Your task to perform on an android device: set default search engine in the chrome app Image 0: 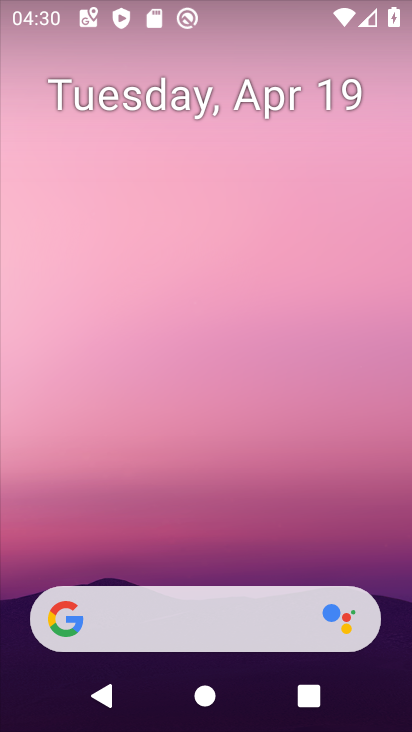
Step 0: drag from (110, 505) to (200, 163)
Your task to perform on an android device: set default search engine in the chrome app Image 1: 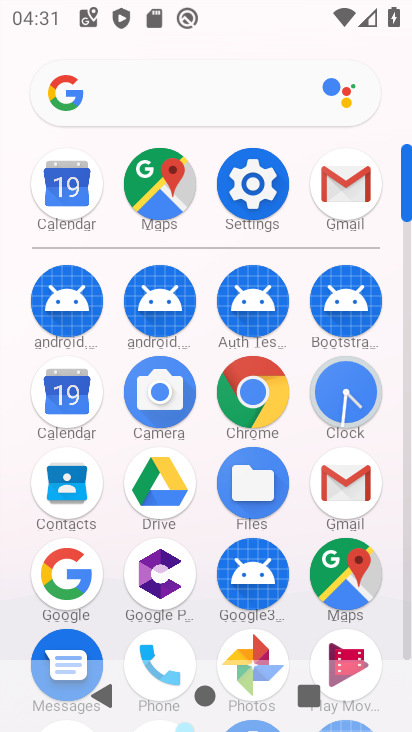
Step 1: click (274, 389)
Your task to perform on an android device: set default search engine in the chrome app Image 2: 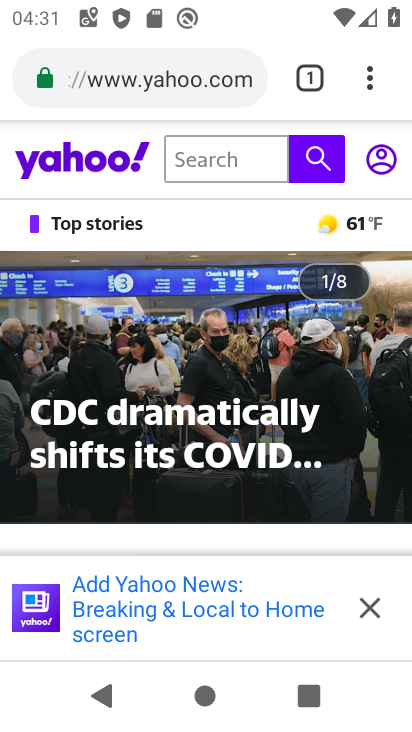
Step 2: click (372, 73)
Your task to perform on an android device: set default search engine in the chrome app Image 3: 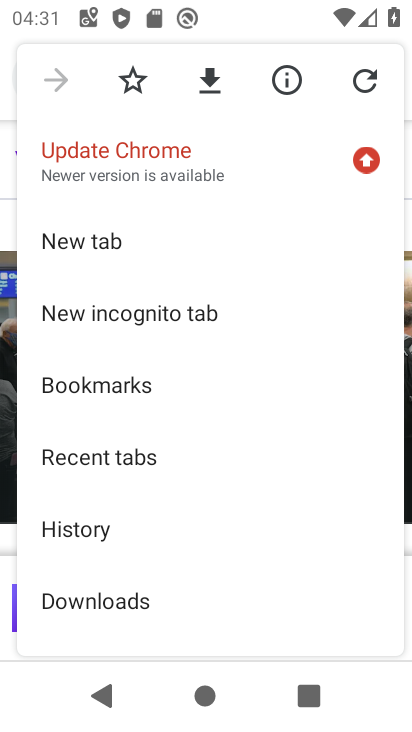
Step 3: drag from (133, 485) to (152, 287)
Your task to perform on an android device: set default search engine in the chrome app Image 4: 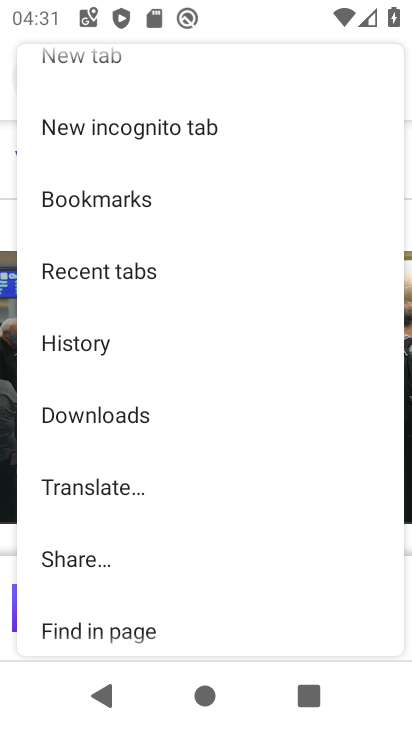
Step 4: drag from (109, 531) to (127, 264)
Your task to perform on an android device: set default search engine in the chrome app Image 5: 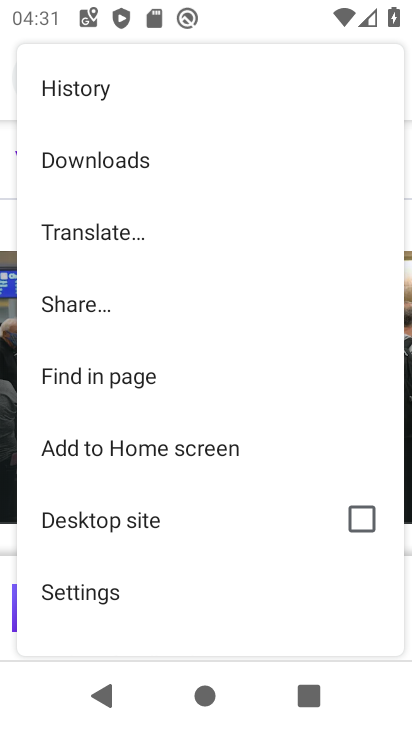
Step 5: click (103, 588)
Your task to perform on an android device: set default search engine in the chrome app Image 6: 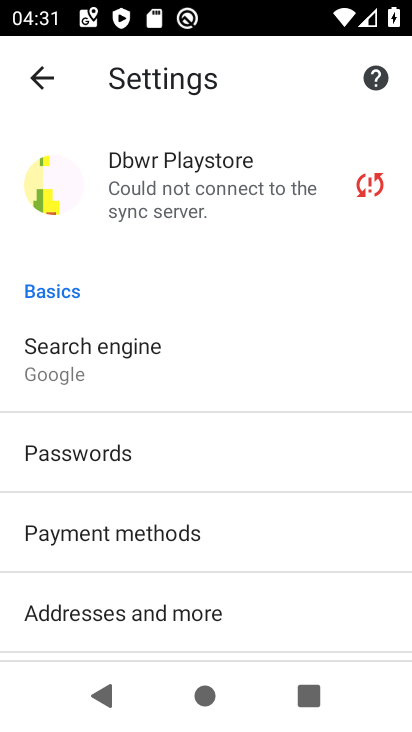
Step 6: click (70, 349)
Your task to perform on an android device: set default search engine in the chrome app Image 7: 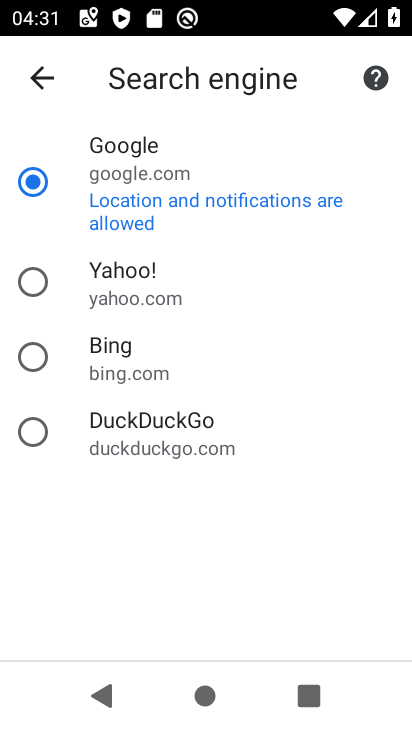
Step 7: click (104, 300)
Your task to perform on an android device: set default search engine in the chrome app Image 8: 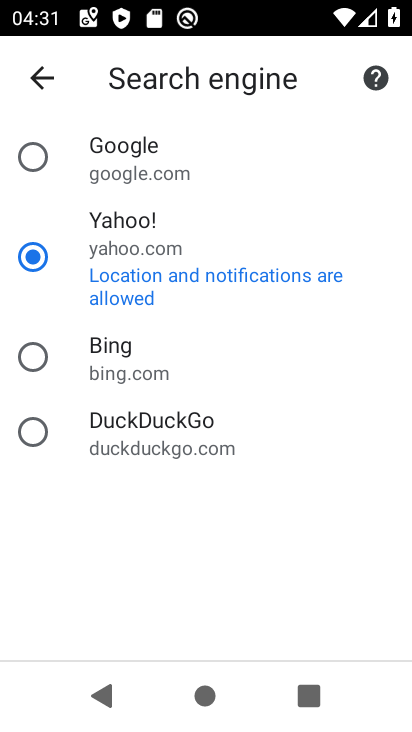
Step 8: task complete